Your task to perform on an android device: Go to Google maps Image 0: 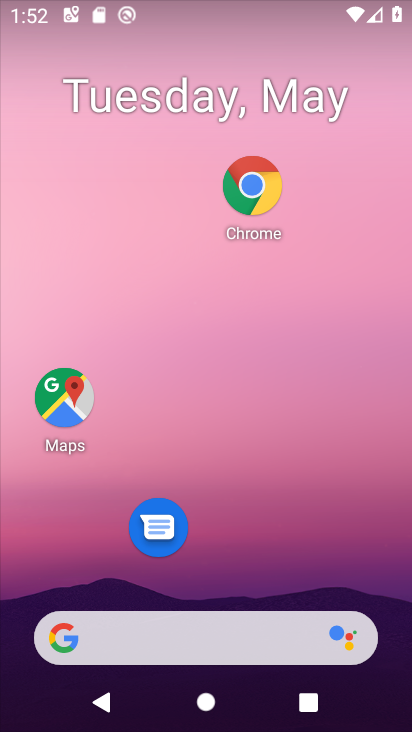
Step 0: click (46, 392)
Your task to perform on an android device: Go to Google maps Image 1: 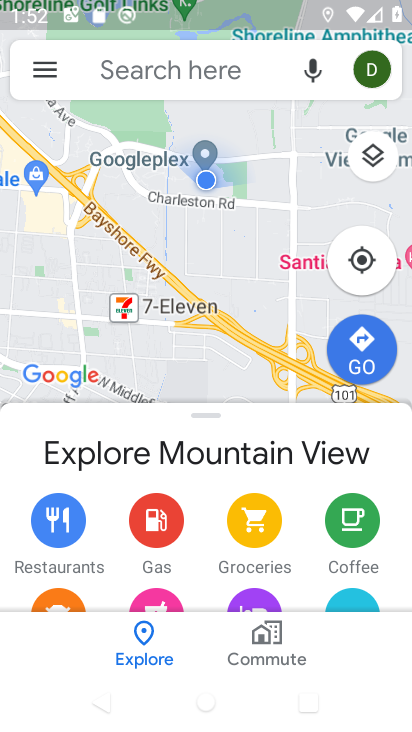
Step 1: click (136, 71)
Your task to perform on an android device: Go to Google maps Image 2: 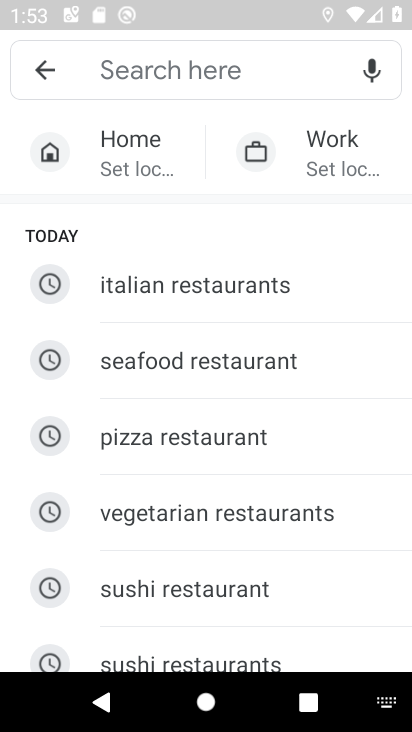
Step 2: click (38, 60)
Your task to perform on an android device: Go to Google maps Image 3: 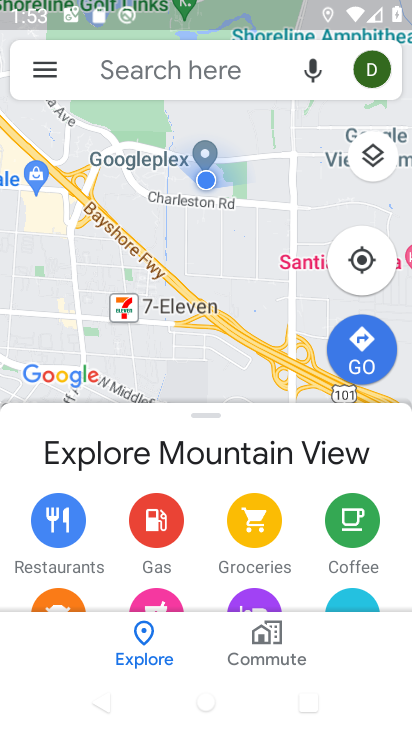
Step 3: task complete